Your task to perform on an android device: Go to Reddit.com Image 0: 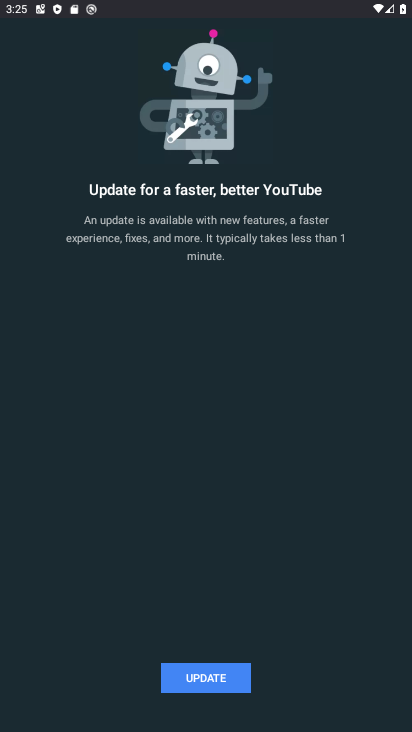
Step 0: press home button
Your task to perform on an android device: Go to Reddit.com Image 1: 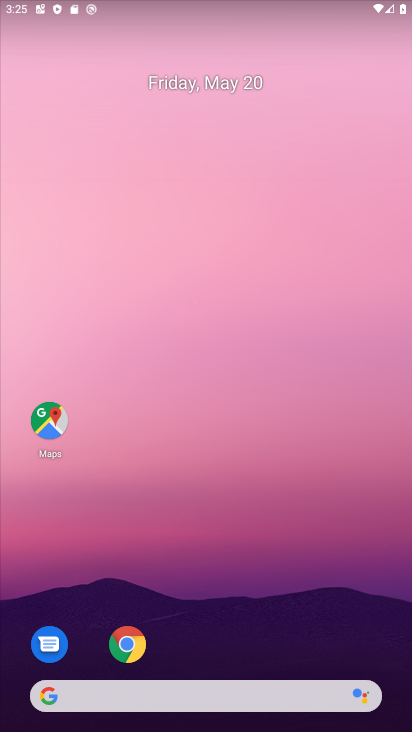
Step 1: click (191, 689)
Your task to perform on an android device: Go to Reddit.com Image 2: 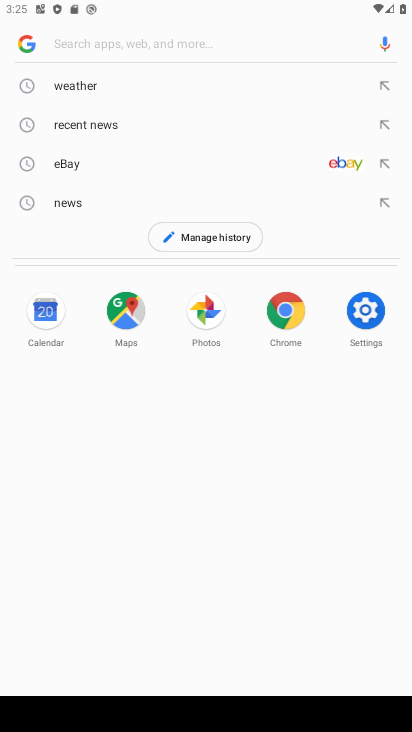
Step 2: type "reddit.com"
Your task to perform on an android device: Go to Reddit.com Image 3: 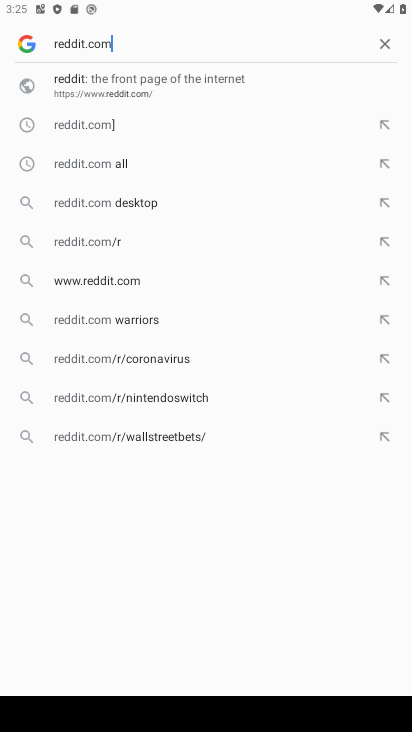
Step 3: click (147, 77)
Your task to perform on an android device: Go to Reddit.com Image 4: 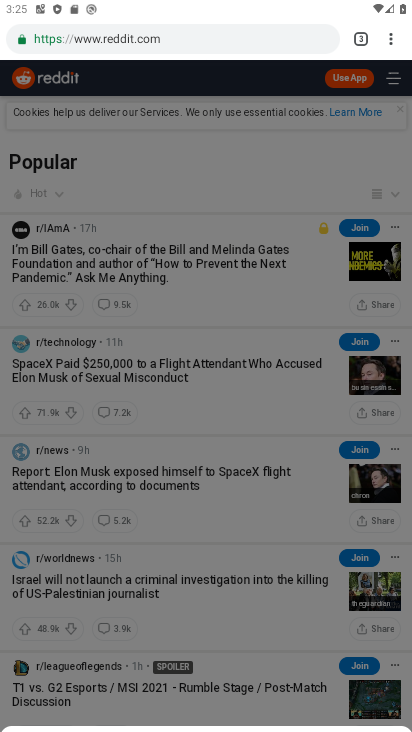
Step 4: task complete